Your task to perform on an android device: install app "McDonald's" Image 0: 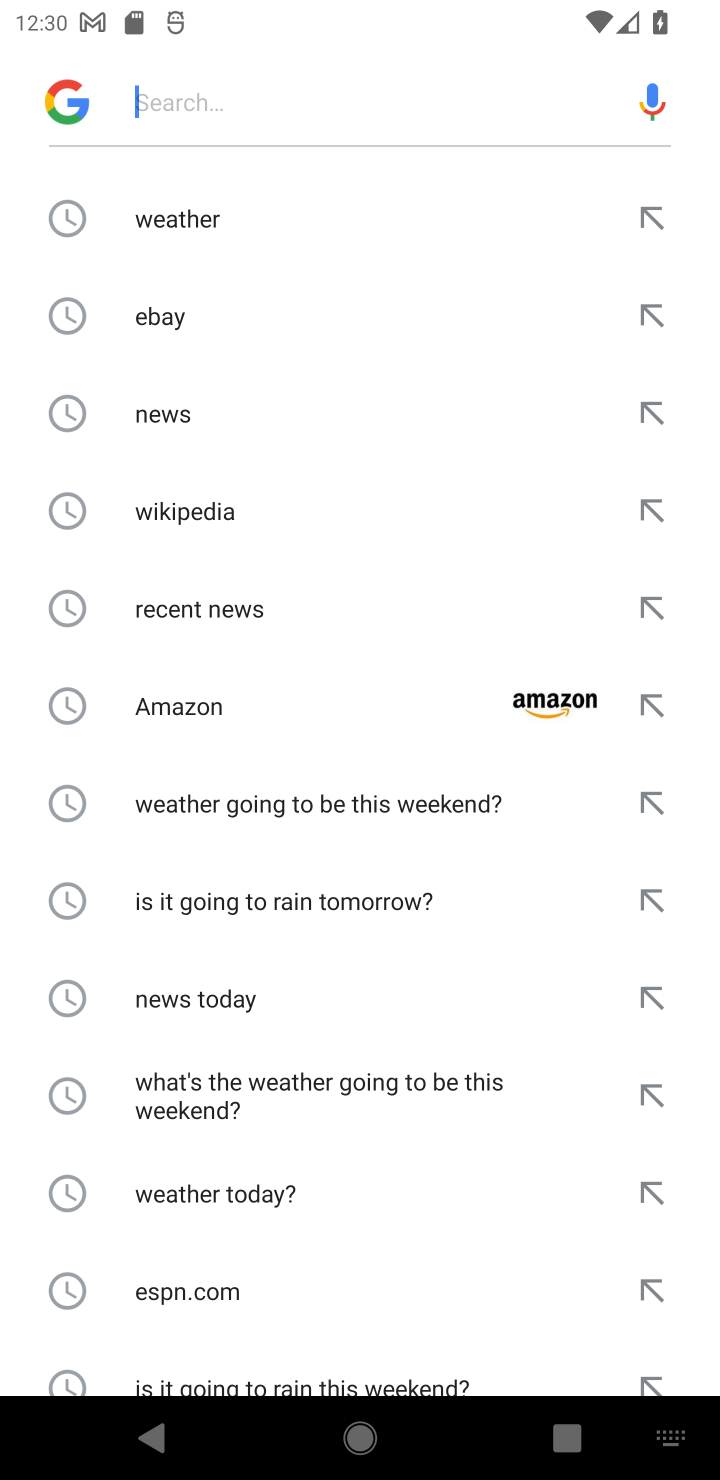
Step 0: press home button
Your task to perform on an android device: install app "McDonald's" Image 1: 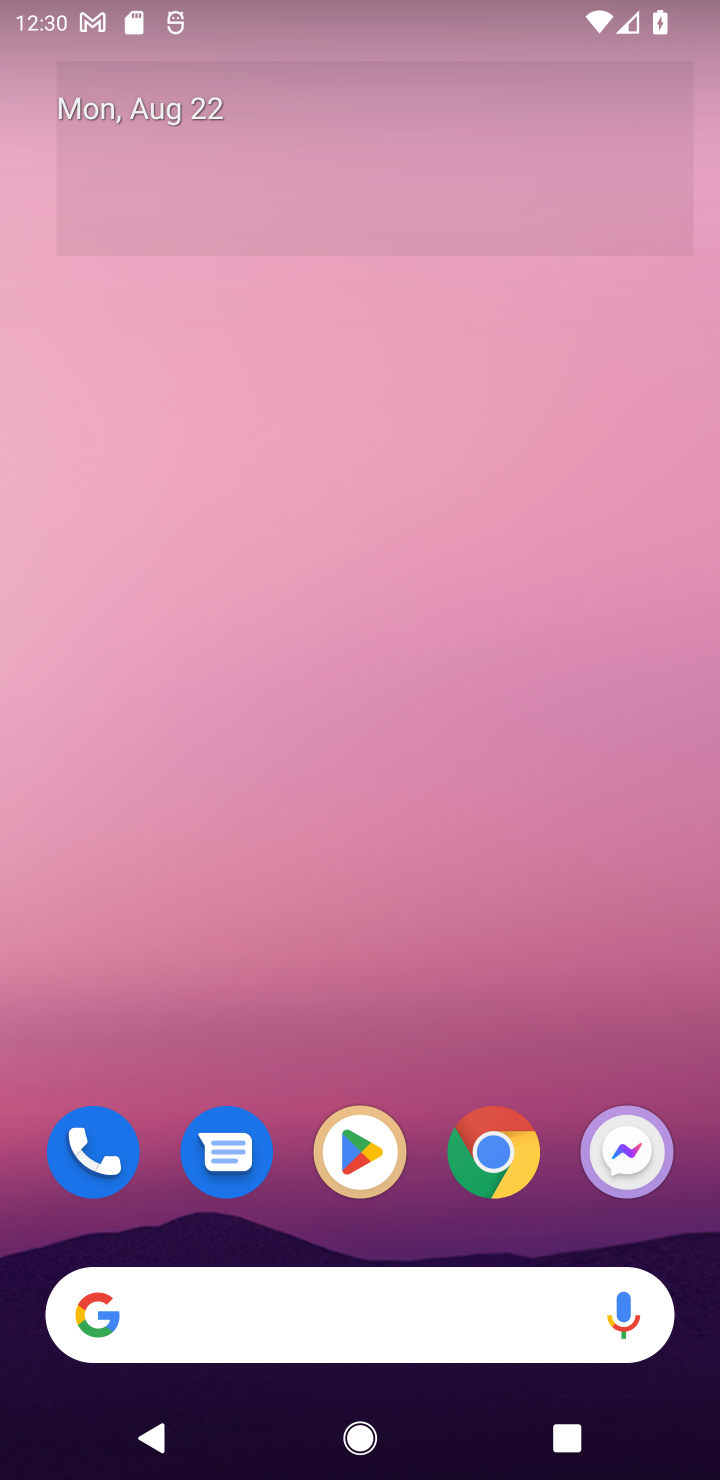
Step 1: click (331, 1193)
Your task to perform on an android device: install app "McDonald's" Image 2: 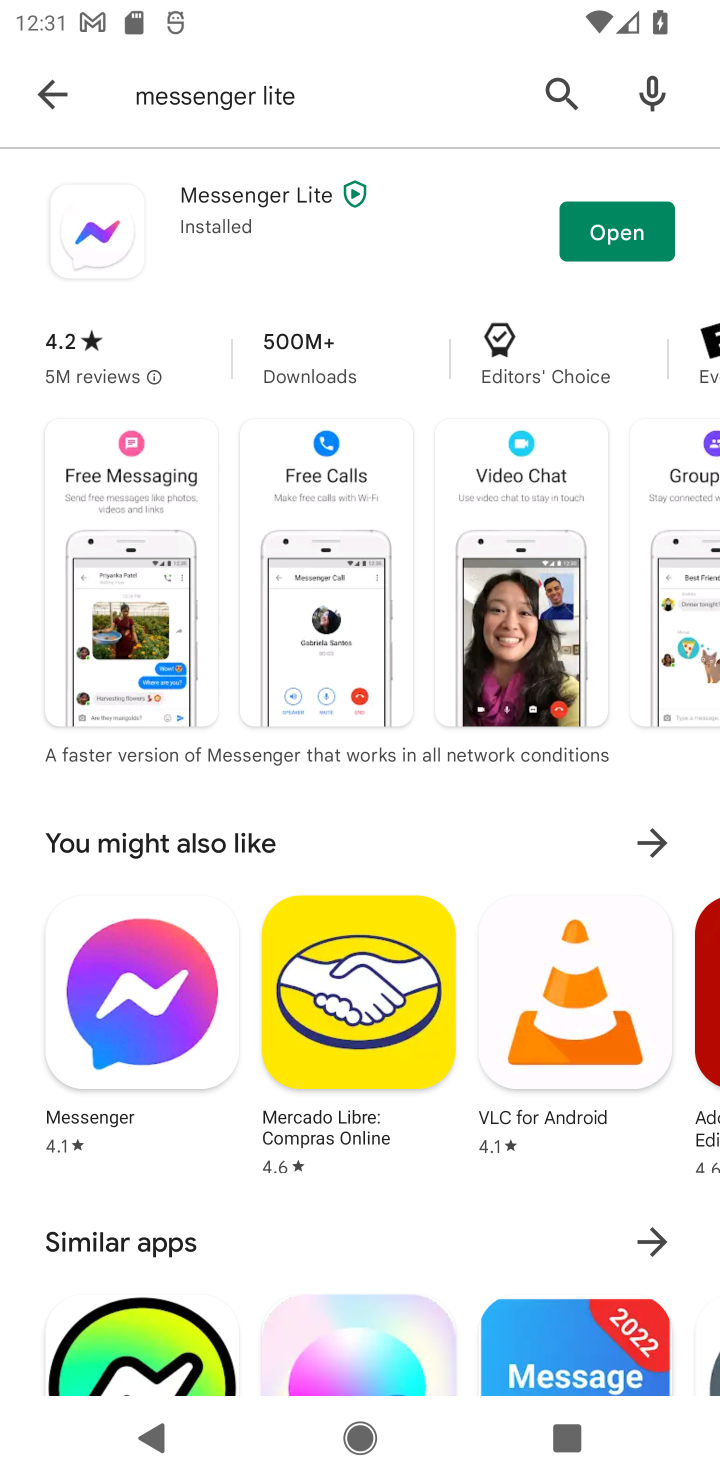
Step 2: click (49, 95)
Your task to perform on an android device: install app "McDonald's" Image 3: 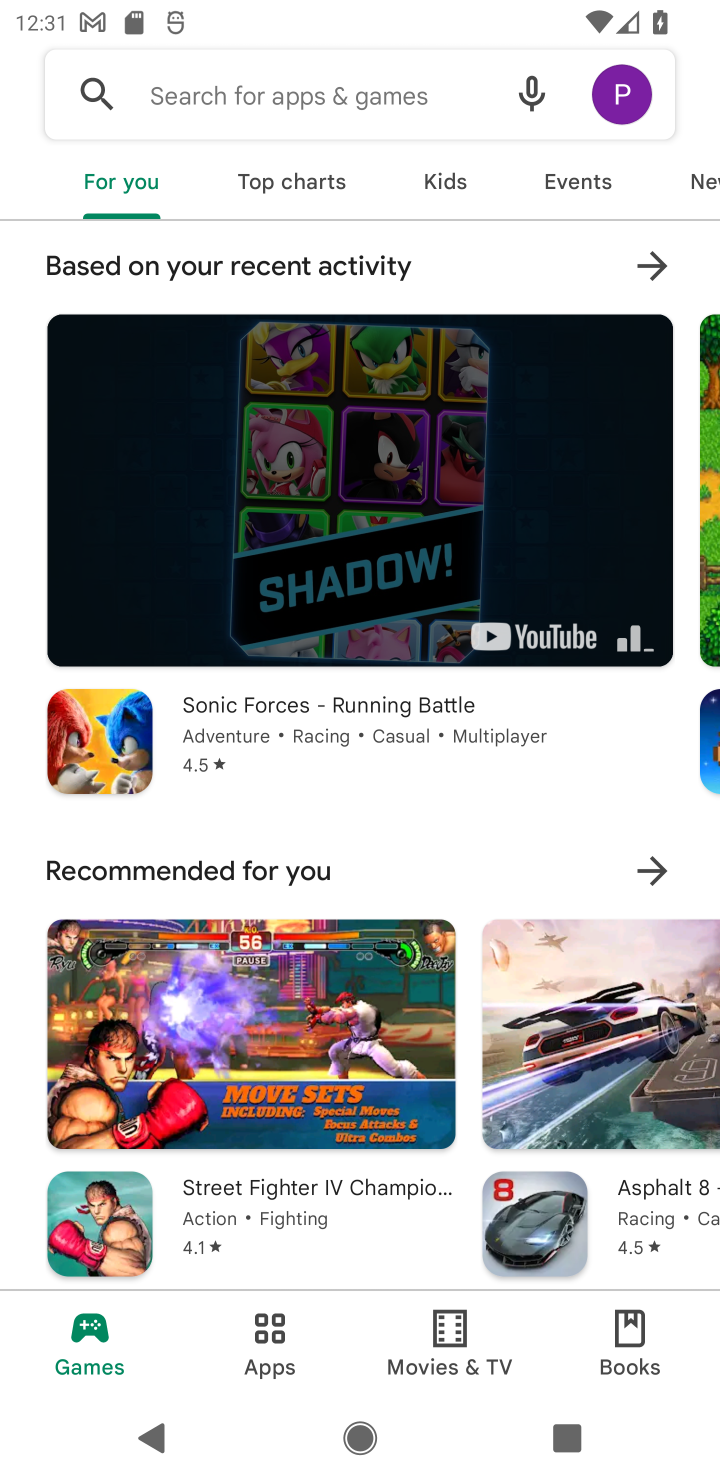
Step 3: click (153, 95)
Your task to perform on an android device: install app "McDonald's" Image 4: 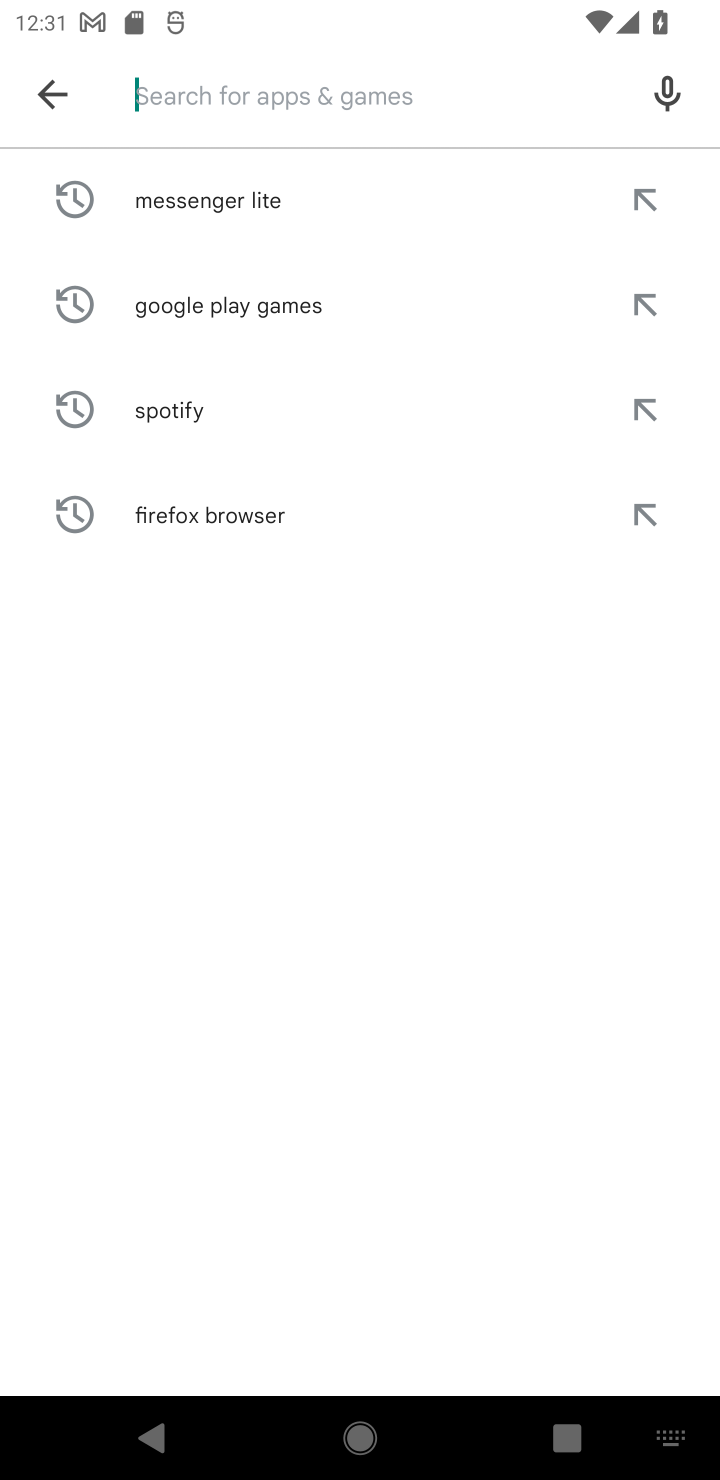
Step 4: type "McDonald's"
Your task to perform on an android device: install app "McDonald's" Image 5: 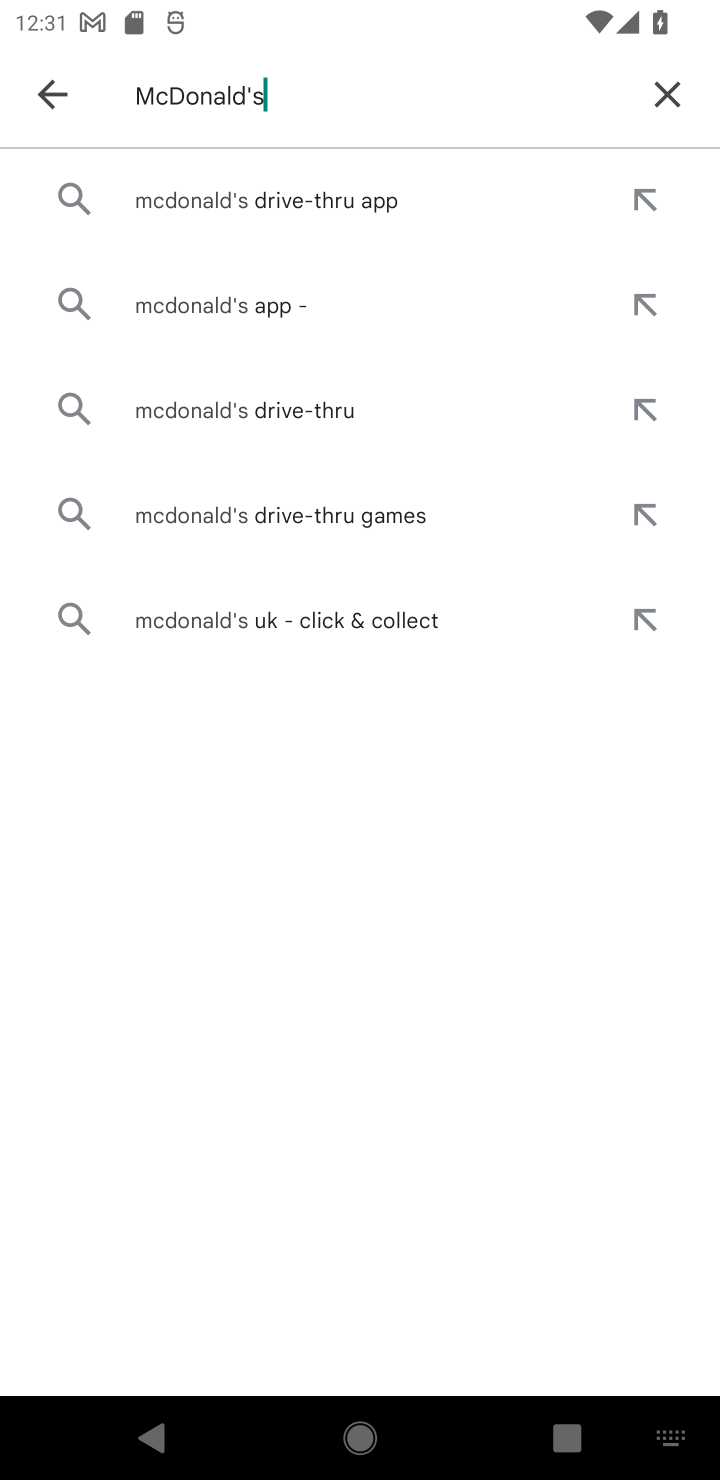
Step 5: click (206, 316)
Your task to perform on an android device: install app "McDonald's" Image 6: 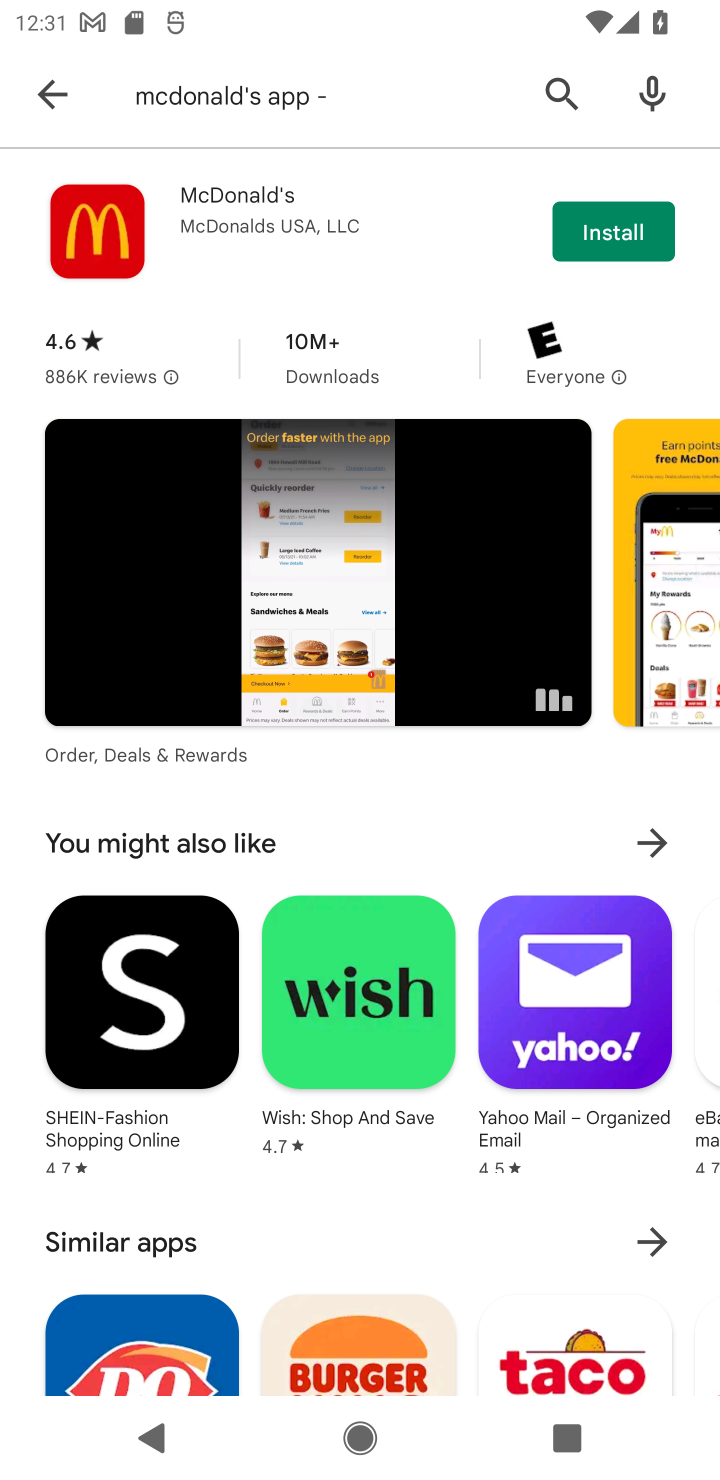
Step 6: click (614, 240)
Your task to perform on an android device: install app "McDonald's" Image 7: 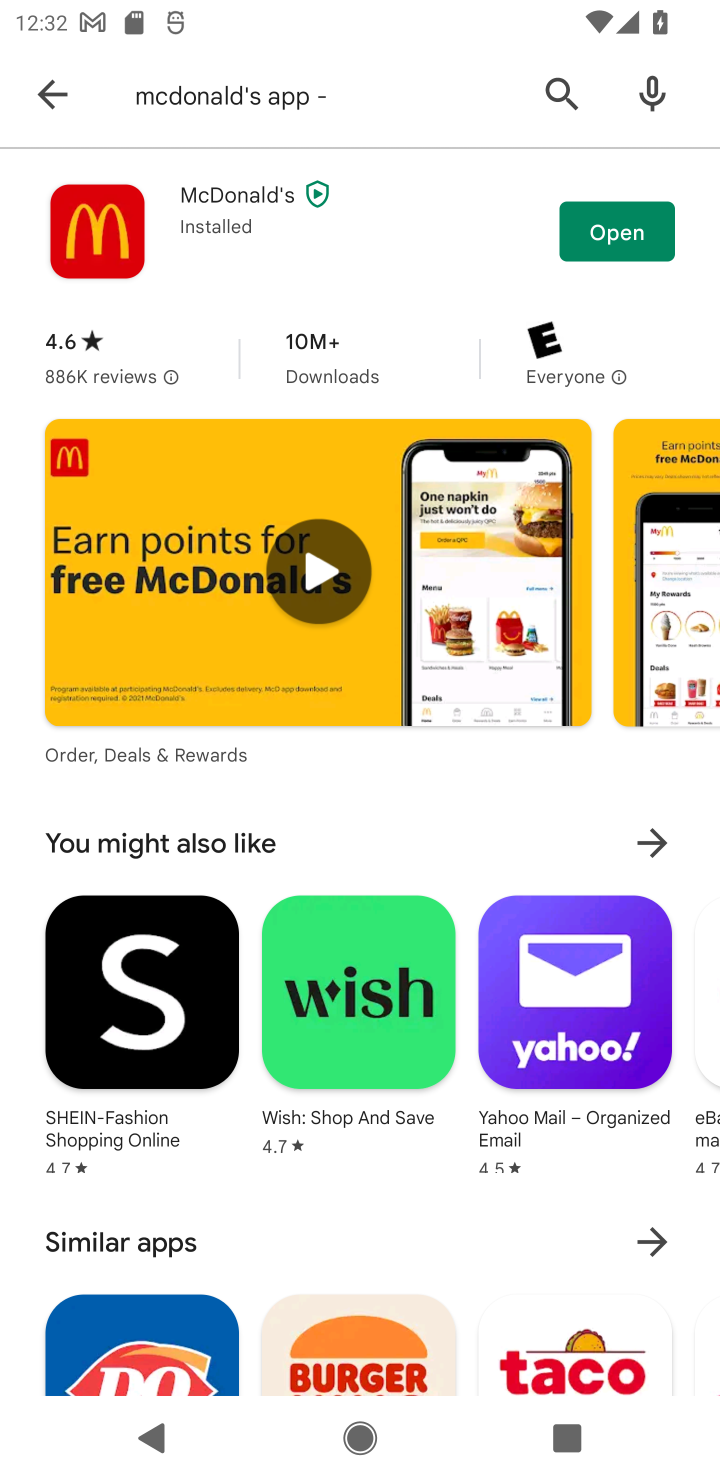
Step 7: click (602, 236)
Your task to perform on an android device: install app "McDonald's" Image 8: 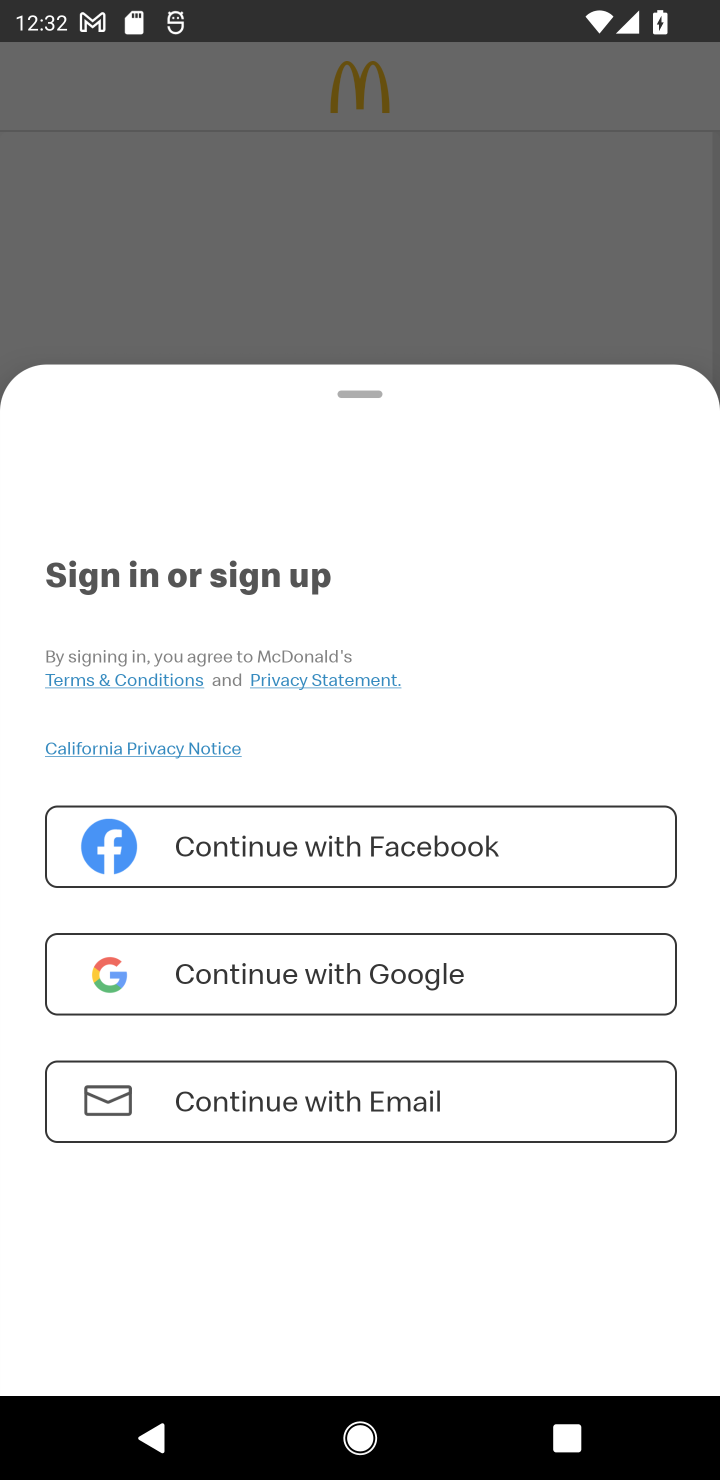
Step 8: task complete